Your task to perform on an android device: stop showing notifications on the lock screen Image 0: 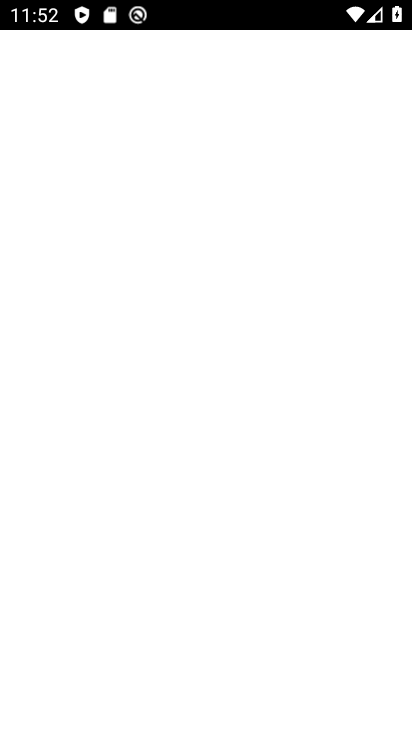
Step 0: click (261, 584)
Your task to perform on an android device: stop showing notifications on the lock screen Image 1: 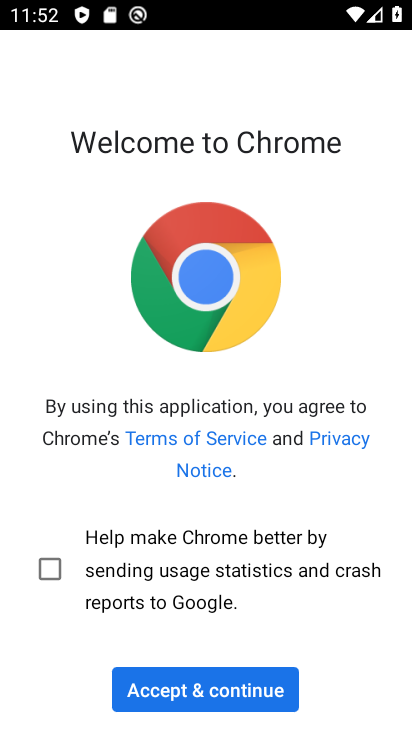
Step 1: press back button
Your task to perform on an android device: stop showing notifications on the lock screen Image 2: 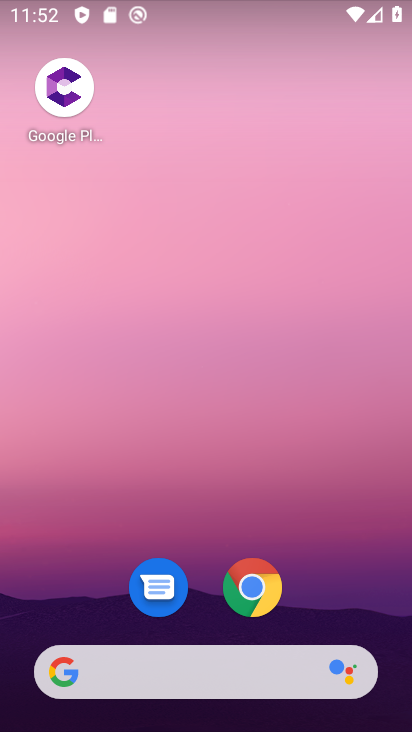
Step 2: drag from (223, 630) to (231, 113)
Your task to perform on an android device: stop showing notifications on the lock screen Image 3: 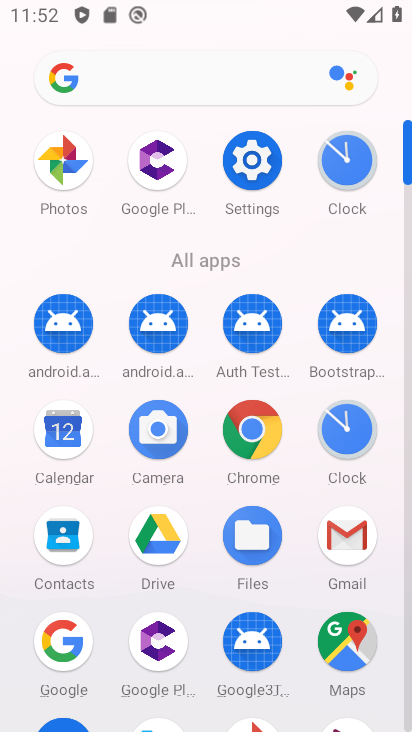
Step 3: click (259, 176)
Your task to perform on an android device: stop showing notifications on the lock screen Image 4: 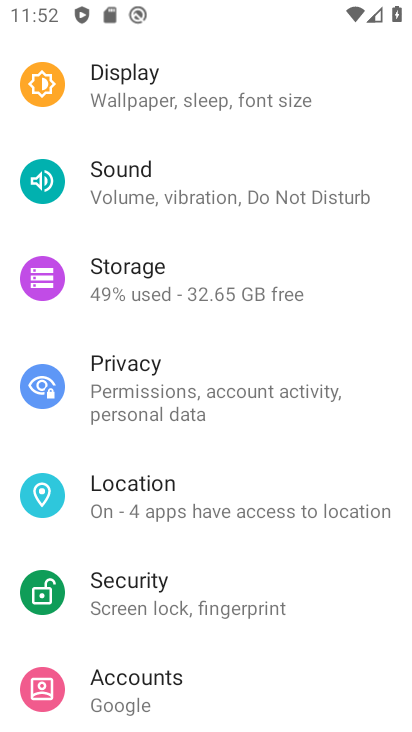
Step 4: drag from (154, 104) to (172, 605)
Your task to perform on an android device: stop showing notifications on the lock screen Image 5: 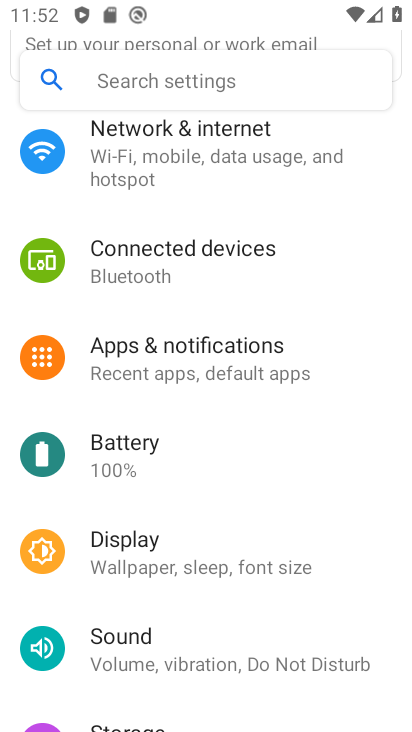
Step 5: click (190, 335)
Your task to perform on an android device: stop showing notifications on the lock screen Image 6: 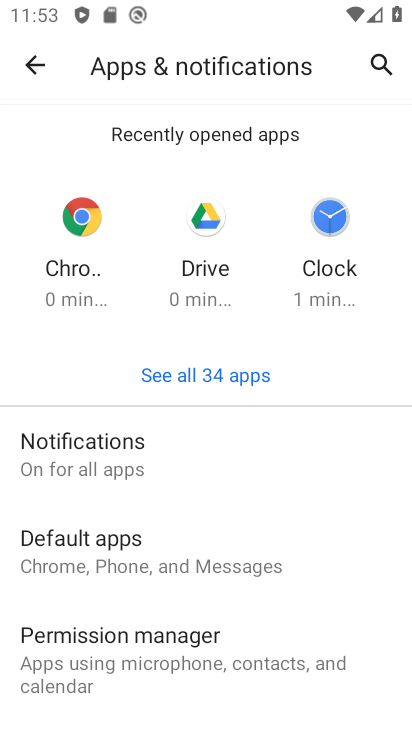
Step 6: drag from (228, 633) to (258, 307)
Your task to perform on an android device: stop showing notifications on the lock screen Image 7: 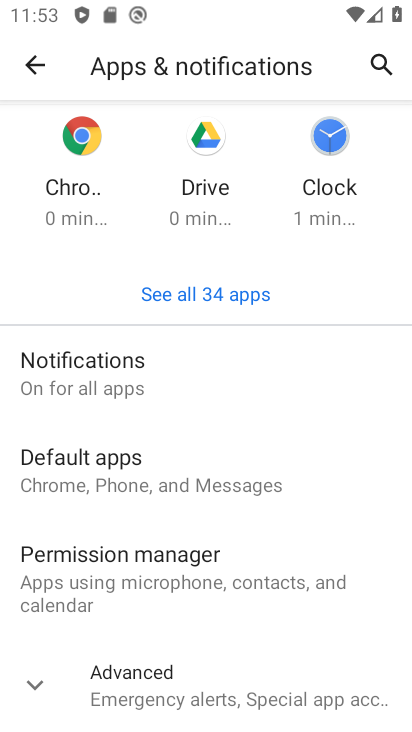
Step 7: click (205, 365)
Your task to perform on an android device: stop showing notifications on the lock screen Image 8: 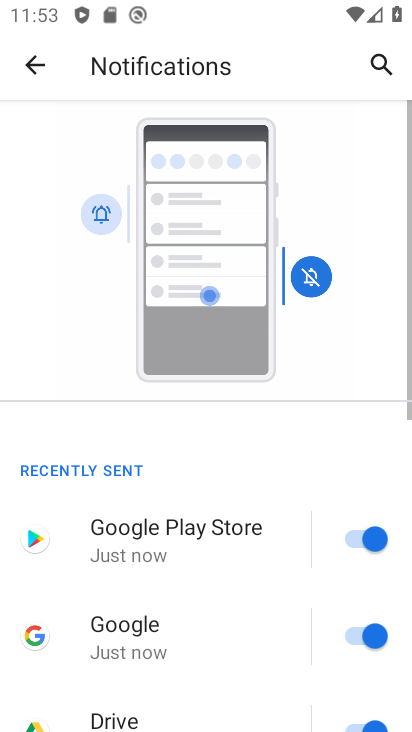
Step 8: drag from (188, 619) to (262, 118)
Your task to perform on an android device: stop showing notifications on the lock screen Image 9: 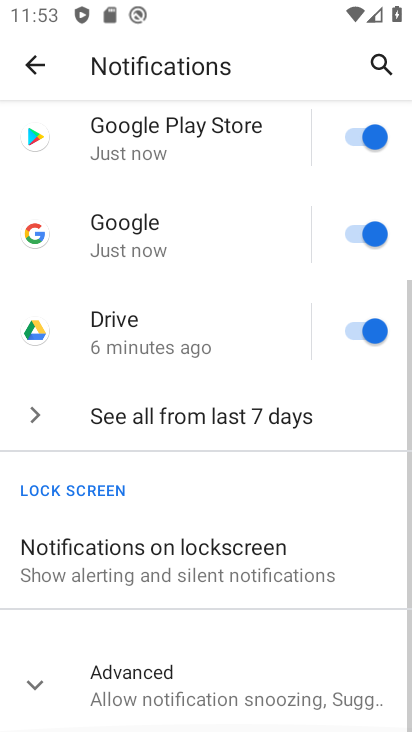
Step 9: drag from (152, 613) to (188, 432)
Your task to perform on an android device: stop showing notifications on the lock screen Image 10: 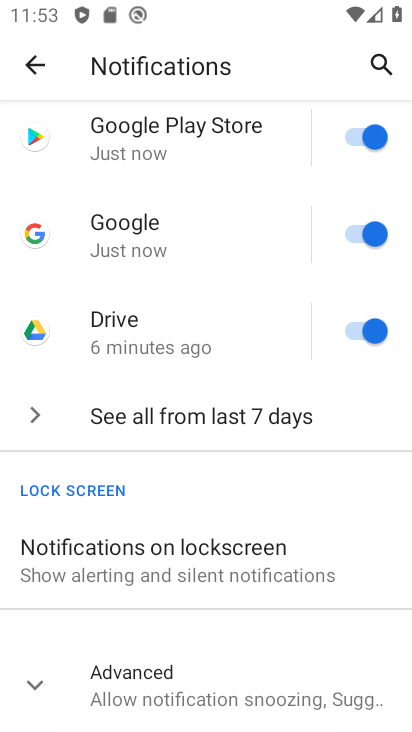
Step 10: click (194, 572)
Your task to perform on an android device: stop showing notifications on the lock screen Image 11: 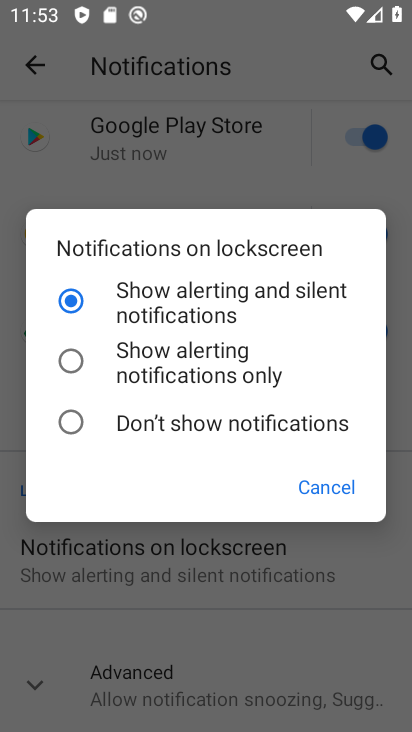
Step 11: click (112, 441)
Your task to perform on an android device: stop showing notifications on the lock screen Image 12: 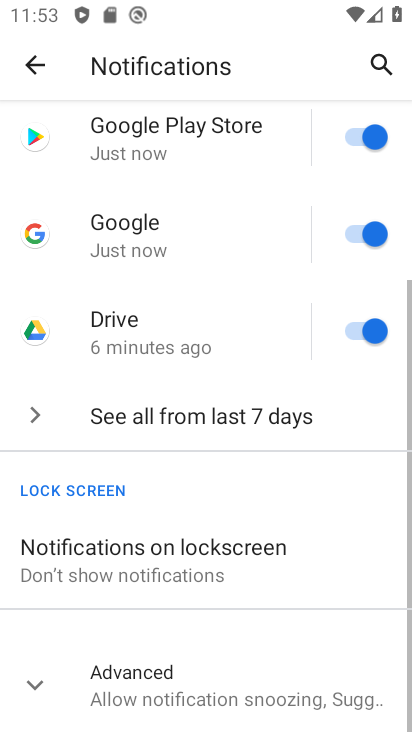
Step 12: task complete